Your task to perform on an android device: toggle priority inbox in the gmail app Image 0: 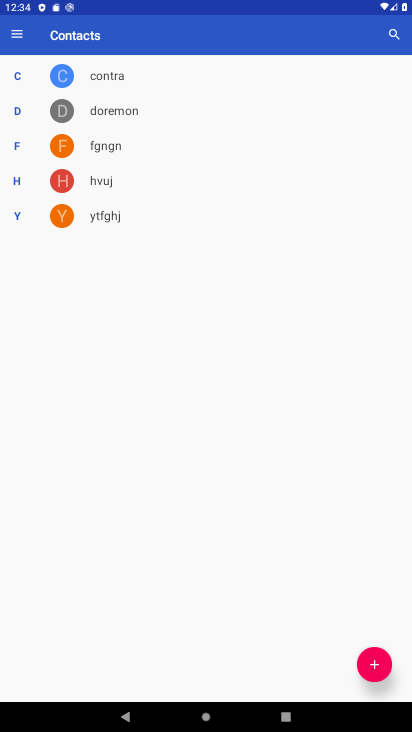
Step 0: press home button
Your task to perform on an android device: toggle priority inbox in the gmail app Image 1: 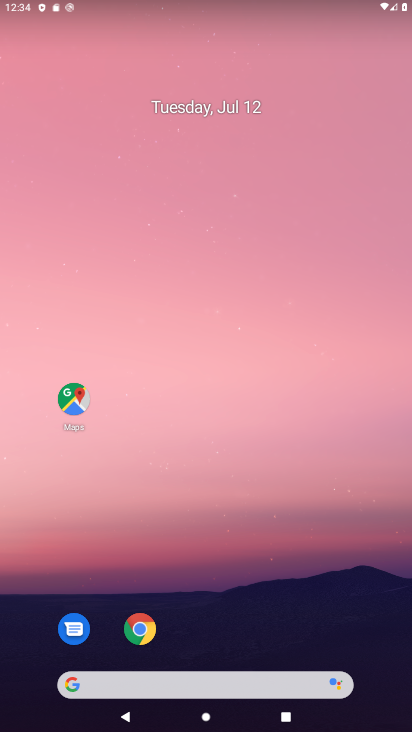
Step 1: drag from (20, 503) to (83, 31)
Your task to perform on an android device: toggle priority inbox in the gmail app Image 2: 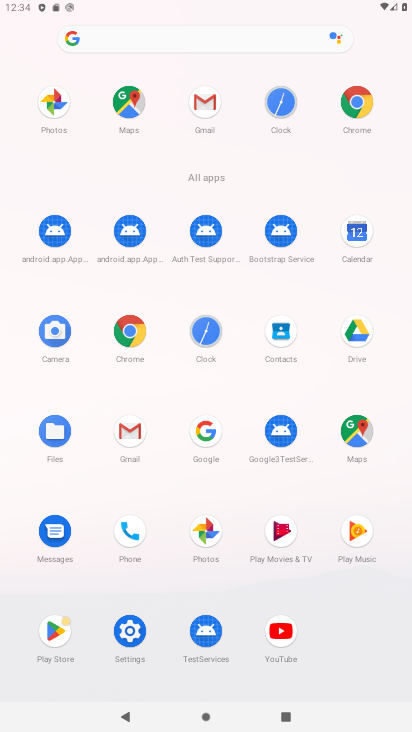
Step 2: click (149, 436)
Your task to perform on an android device: toggle priority inbox in the gmail app Image 3: 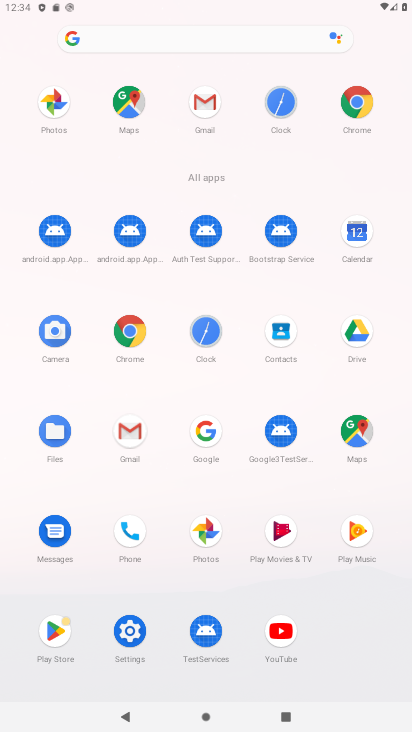
Step 3: click (134, 437)
Your task to perform on an android device: toggle priority inbox in the gmail app Image 4: 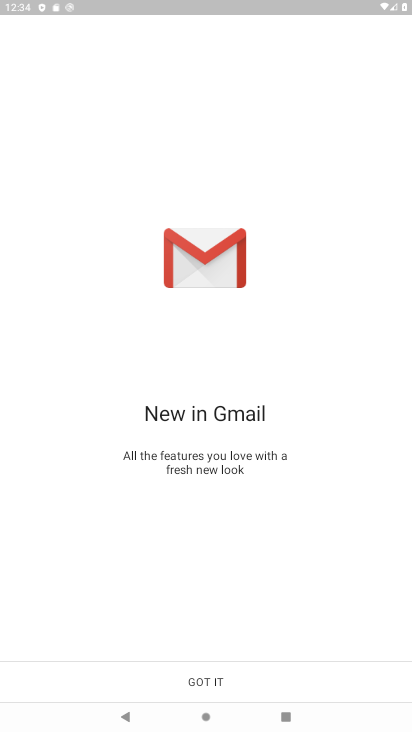
Step 4: click (153, 677)
Your task to perform on an android device: toggle priority inbox in the gmail app Image 5: 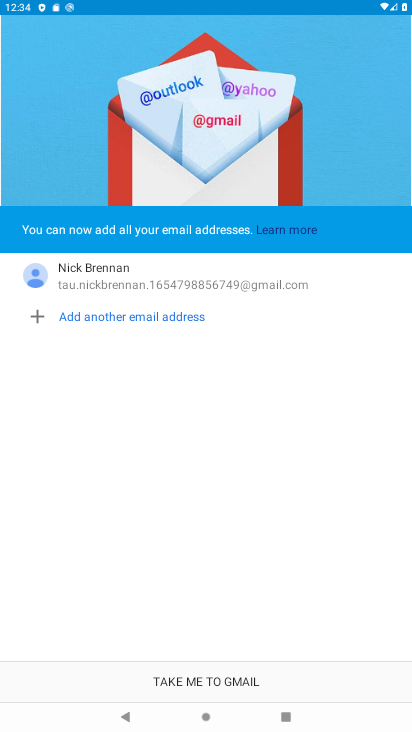
Step 5: click (175, 684)
Your task to perform on an android device: toggle priority inbox in the gmail app Image 6: 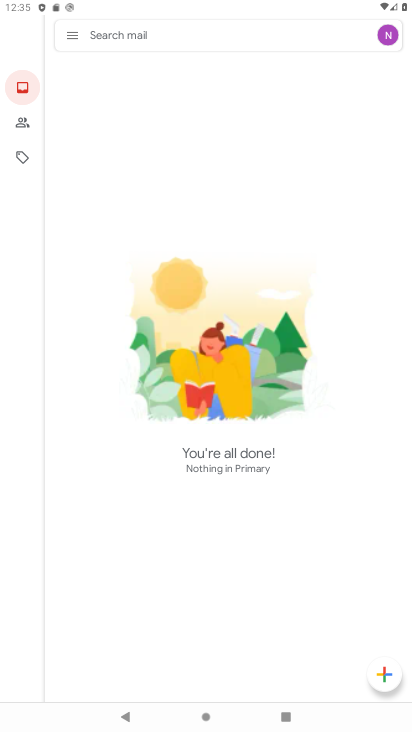
Step 6: click (68, 31)
Your task to perform on an android device: toggle priority inbox in the gmail app Image 7: 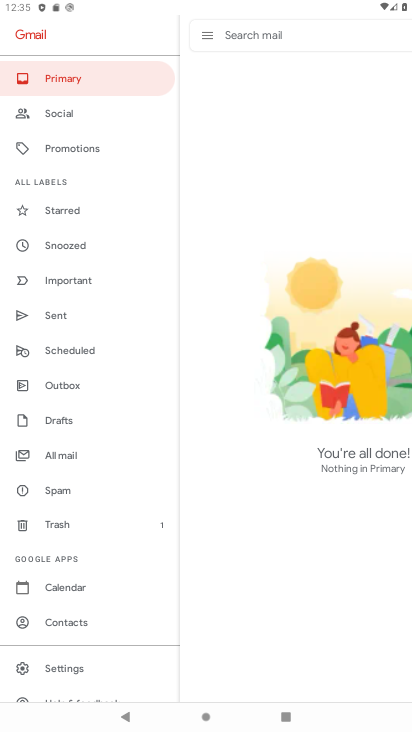
Step 7: click (71, 665)
Your task to perform on an android device: toggle priority inbox in the gmail app Image 8: 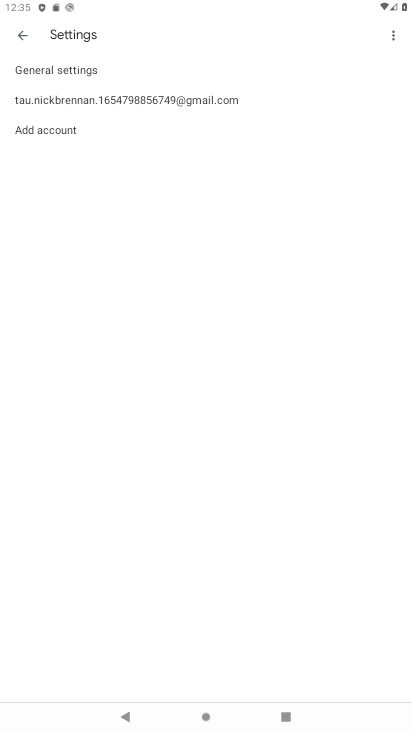
Step 8: click (86, 66)
Your task to perform on an android device: toggle priority inbox in the gmail app Image 9: 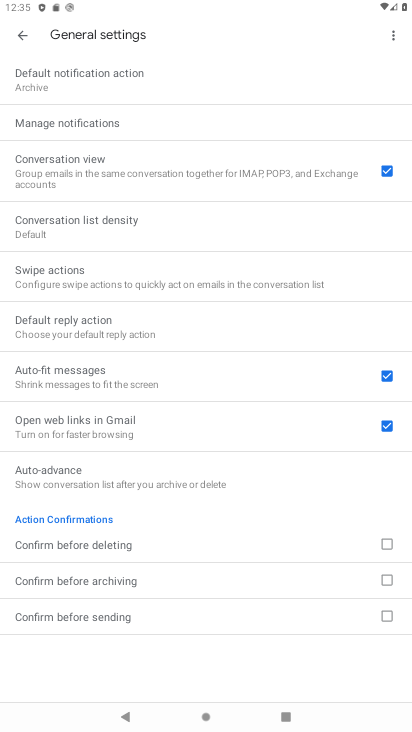
Step 9: click (14, 31)
Your task to perform on an android device: toggle priority inbox in the gmail app Image 10: 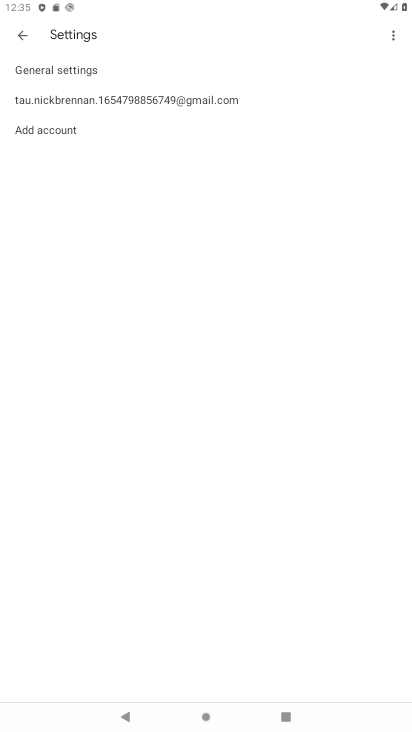
Step 10: click (58, 104)
Your task to perform on an android device: toggle priority inbox in the gmail app Image 11: 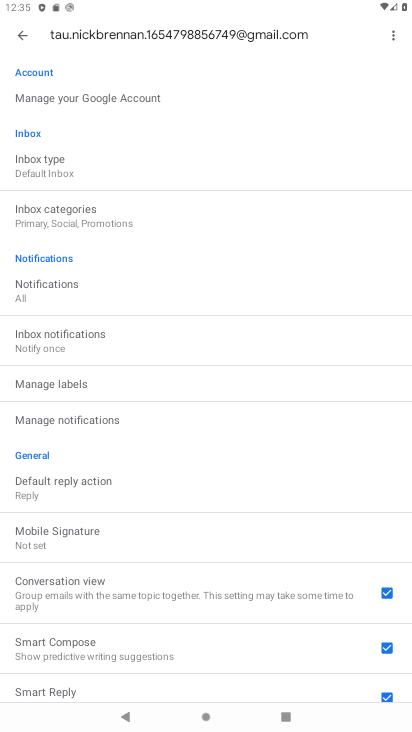
Step 11: click (57, 160)
Your task to perform on an android device: toggle priority inbox in the gmail app Image 12: 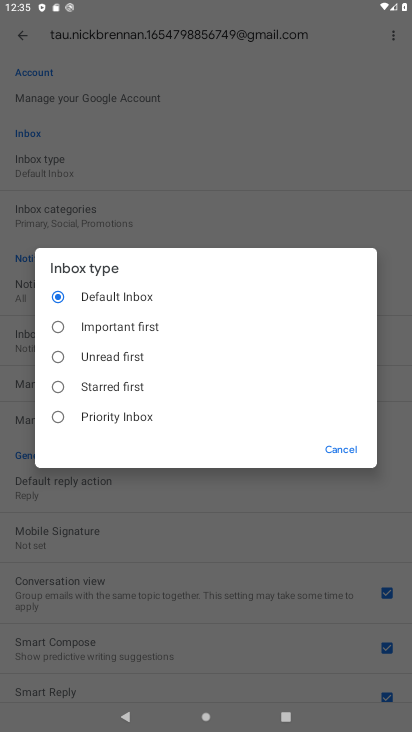
Step 12: click (86, 416)
Your task to perform on an android device: toggle priority inbox in the gmail app Image 13: 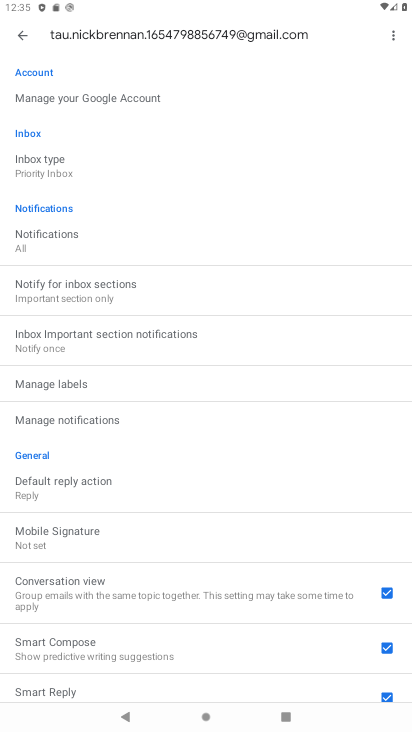
Step 13: task complete